Your task to perform on an android device: read, delete, or share a saved page in the chrome app Image 0: 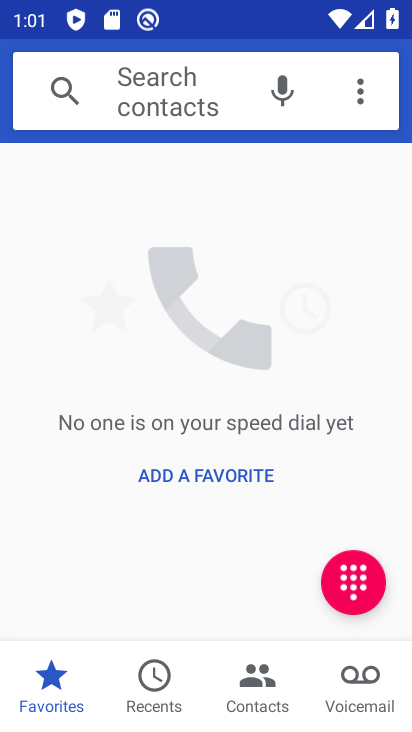
Step 0: press home button
Your task to perform on an android device: read, delete, or share a saved page in the chrome app Image 1: 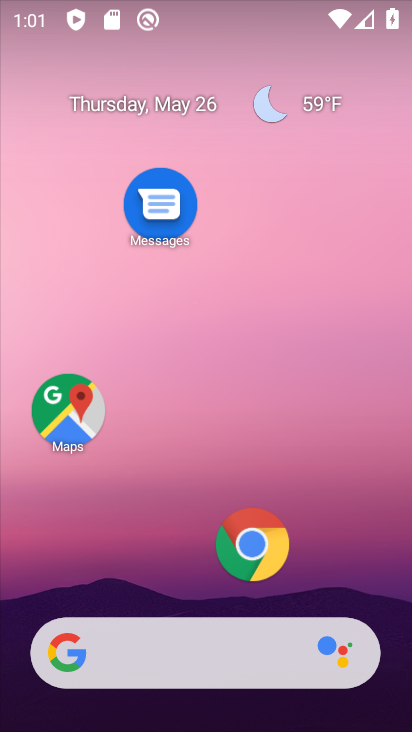
Step 1: click (240, 564)
Your task to perform on an android device: read, delete, or share a saved page in the chrome app Image 2: 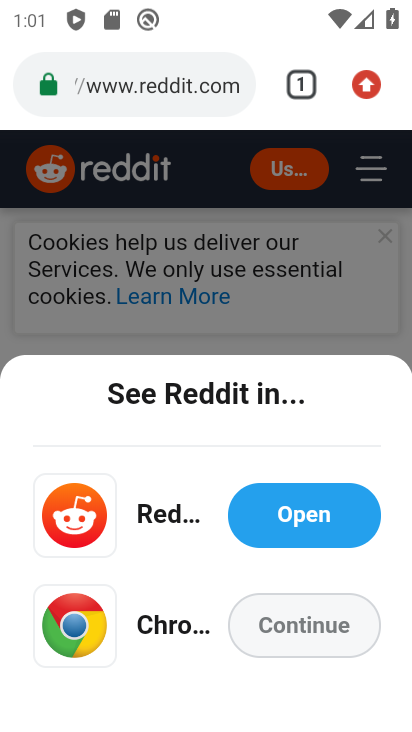
Step 2: click (390, 74)
Your task to perform on an android device: read, delete, or share a saved page in the chrome app Image 3: 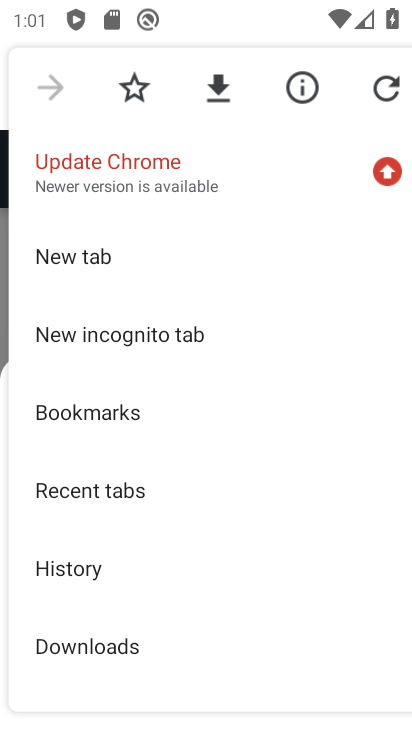
Step 3: drag from (100, 612) to (168, 159)
Your task to perform on an android device: read, delete, or share a saved page in the chrome app Image 4: 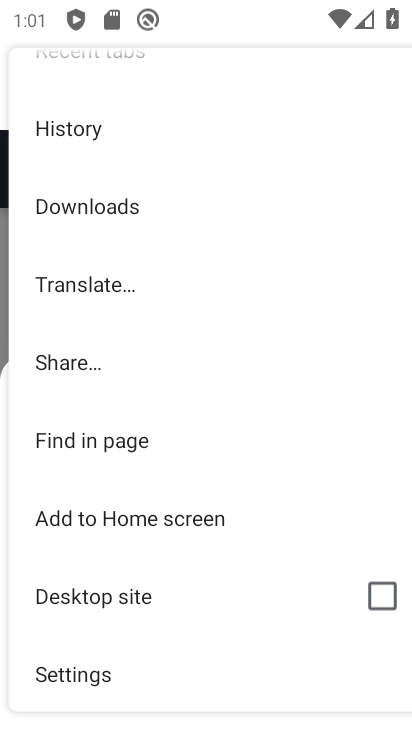
Step 4: click (98, 228)
Your task to perform on an android device: read, delete, or share a saved page in the chrome app Image 5: 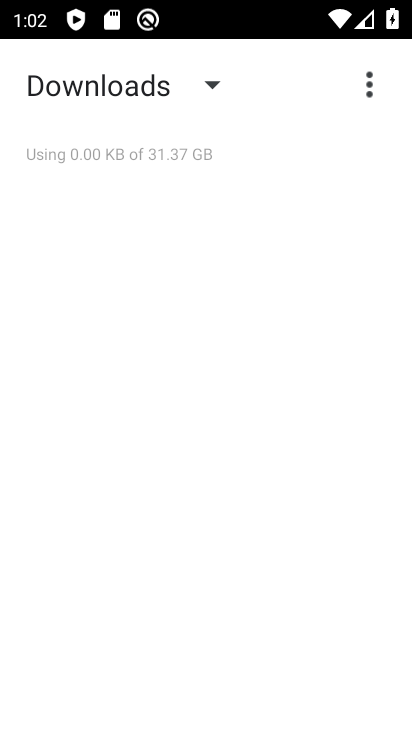
Step 5: task complete